Your task to perform on an android device: turn pop-ups on in chrome Image 0: 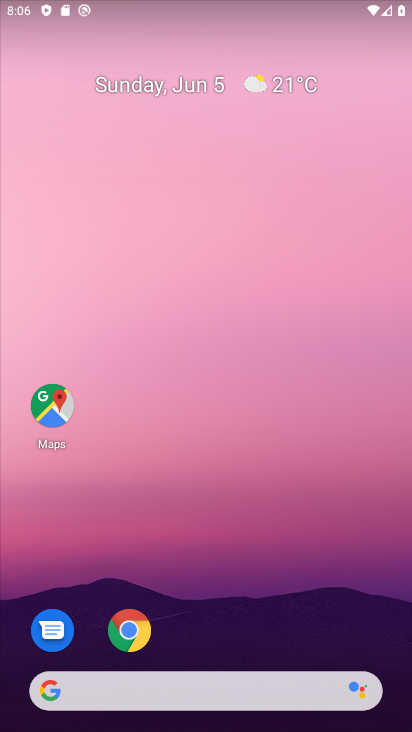
Step 0: click (124, 631)
Your task to perform on an android device: turn pop-ups on in chrome Image 1: 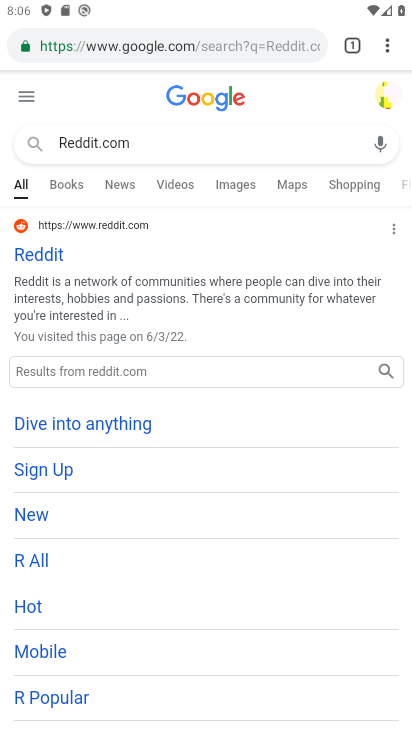
Step 1: click (388, 45)
Your task to perform on an android device: turn pop-ups on in chrome Image 2: 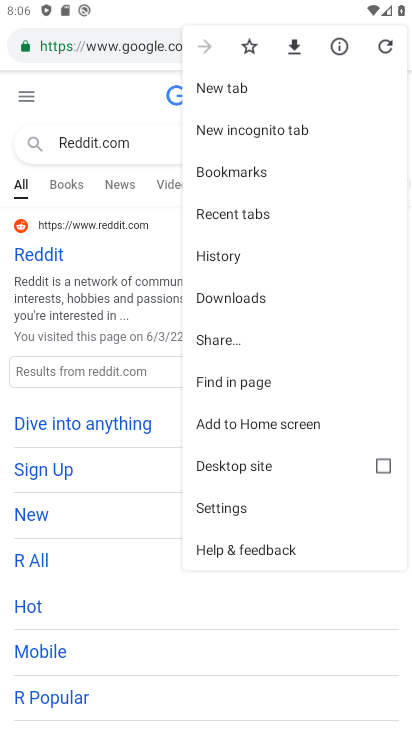
Step 2: click (228, 514)
Your task to perform on an android device: turn pop-ups on in chrome Image 3: 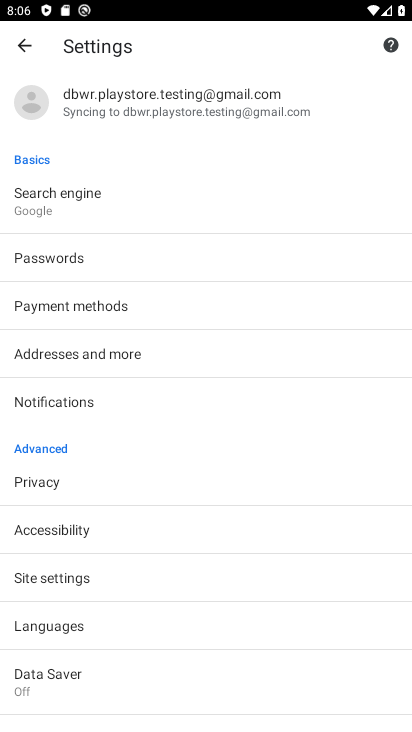
Step 3: click (66, 571)
Your task to perform on an android device: turn pop-ups on in chrome Image 4: 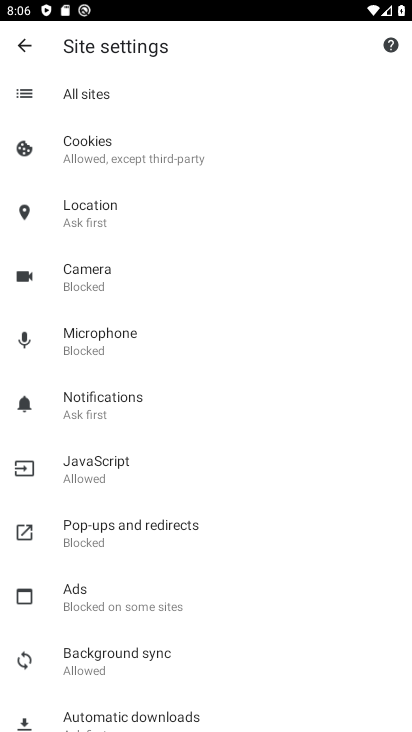
Step 4: click (159, 523)
Your task to perform on an android device: turn pop-ups on in chrome Image 5: 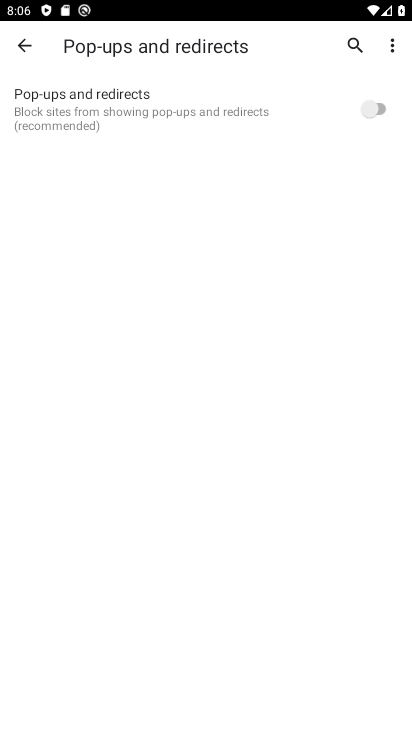
Step 5: click (376, 105)
Your task to perform on an android device: turn pop-ups on in chrome Image 6: 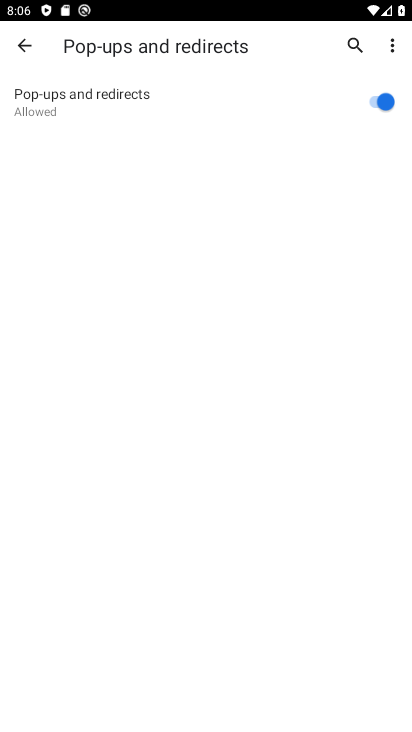
Step 6: task complete